Your task to perform on an android device: toggle data saver in the chrome app Image 0: 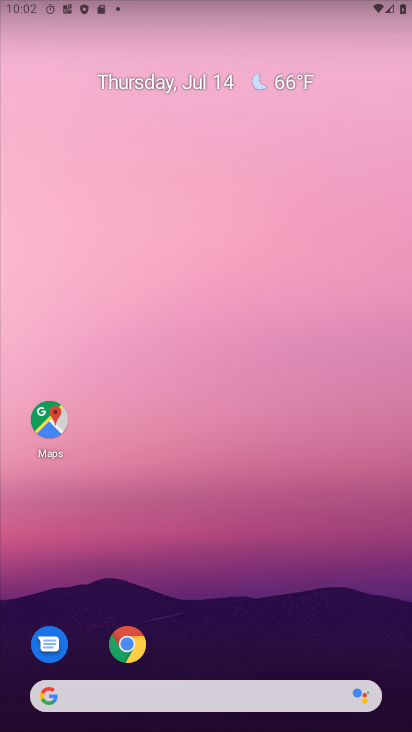
Step 0: drag from (210, 718) to (174, 314)
Your task to perform on an android device: toggle data saver in the chrome app Image 1: 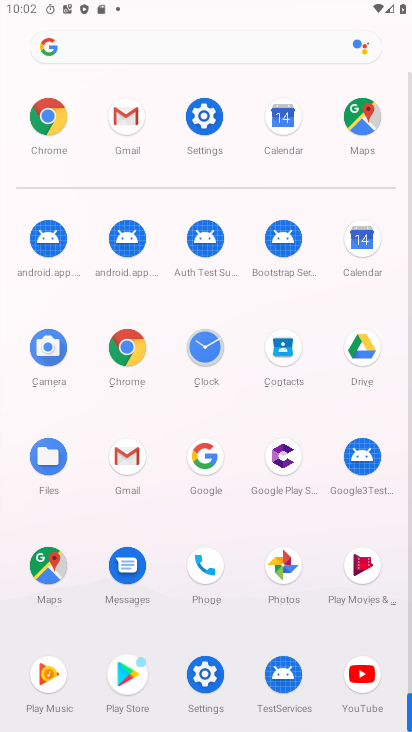
Step 1: click (125, 353)
Your task to perform on an android device: toggle data saver in the chrome app Image 2: 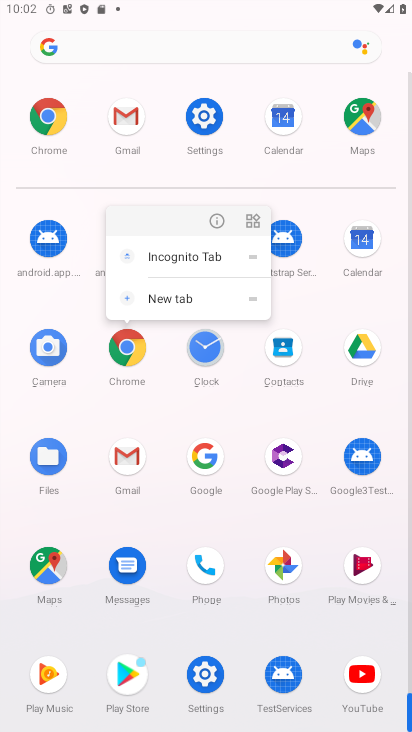
Step 2: click (118, 344)
Your task to perform on an android device: toggle data saver in the chrome app Image 3: 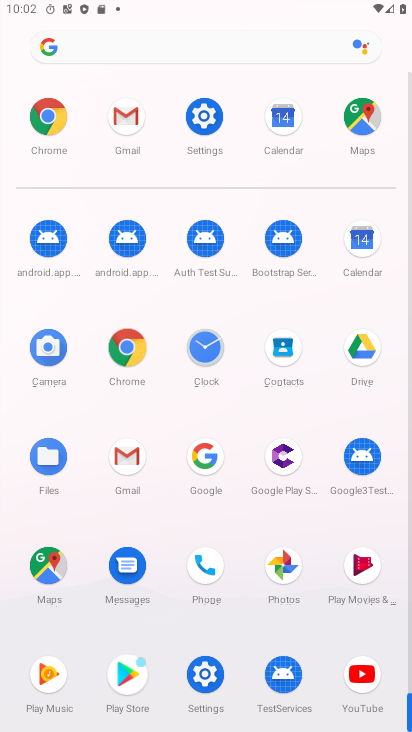
Step 3: click (119, 344)
Your task to perform on an android device: toggle data saver in the chrome app Image 4: 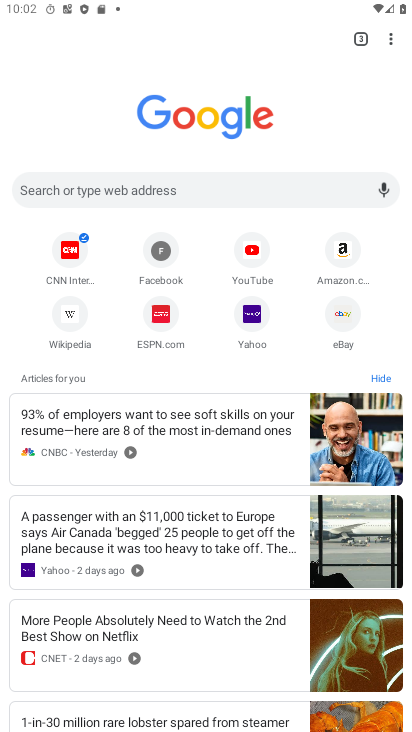
Step 4: drag from (385, 36) to (249, 325)
Your task to perform on an android device: toggle data saver in the chrome app Image 5: 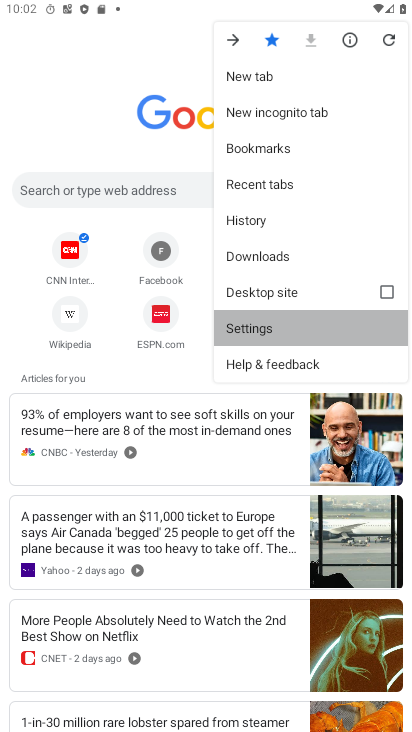
Step 5: click (247, 319)
Your task to perform on an android device: toggle data saver in the chrome app Image 6: 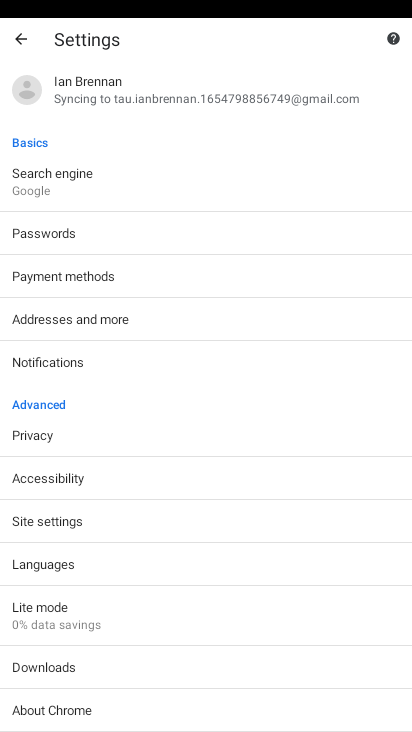
Step 6: click (44, 609)
Your task to perform on an android device: toggle data saver in the chrome app Image 7: 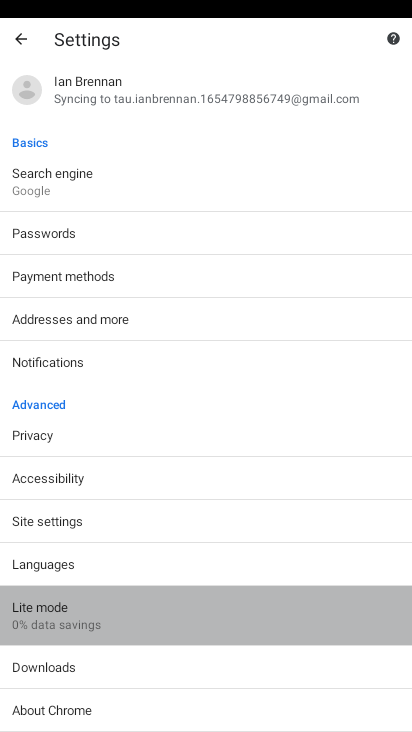
Step 7: click (44, 609)
Your task to perform on an android device: toggle data saver in the chrome app Image 8: 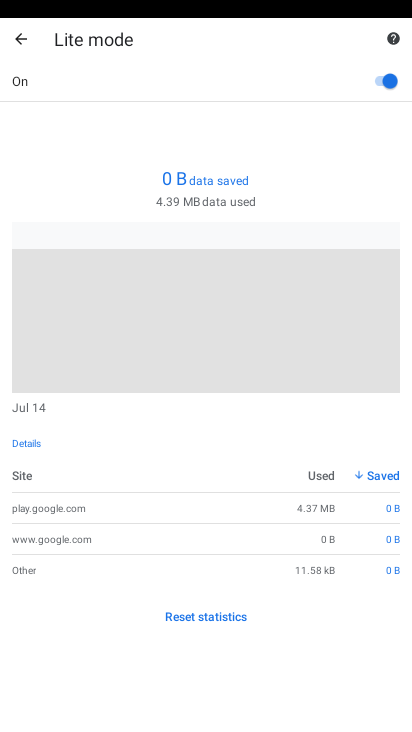
Step 8: click (388, 76)
Your task to perform on an android device: toggle data saver in the chrome app Image 9: 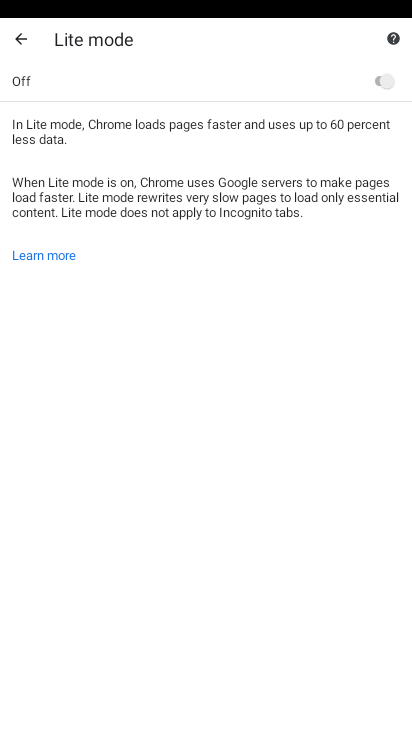
Step 9: task complete